Your task to perform on an android device: toggle notification dots Image 0: 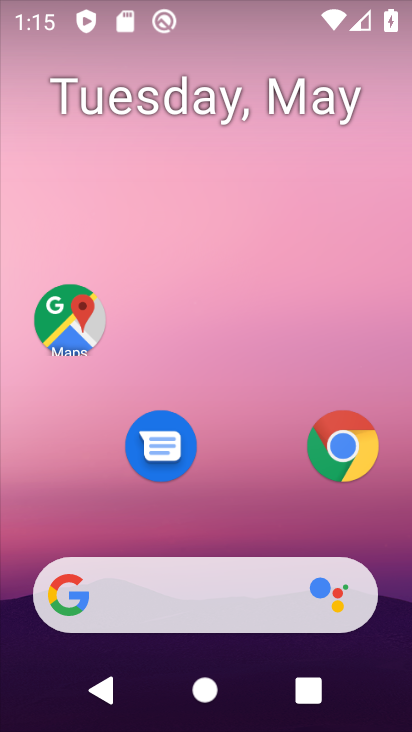
Step 0: drag from (198, 554) to (137, 0)
Your task to perform on an android device: toggle notification dots Image 1: 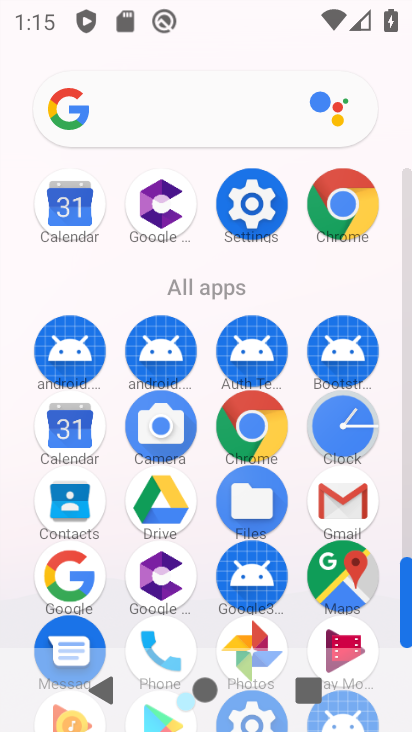
Step 1: click (258, 196)
Your task to perform on an android device: toggle notification dots Image 2: 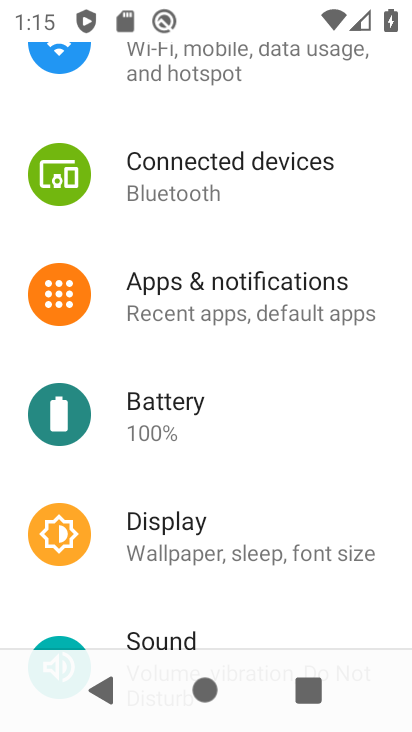
Step 2: click (245, 292)
Your task to perform on an android device: toggle notification dots Image 3: 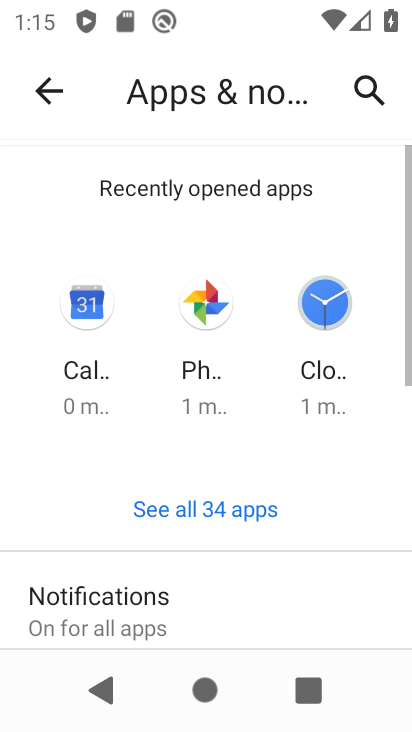
Step 3: drag from (147, 564) to (67, 5)
Your task to perform on an android device: toggle notification dots Image 4: 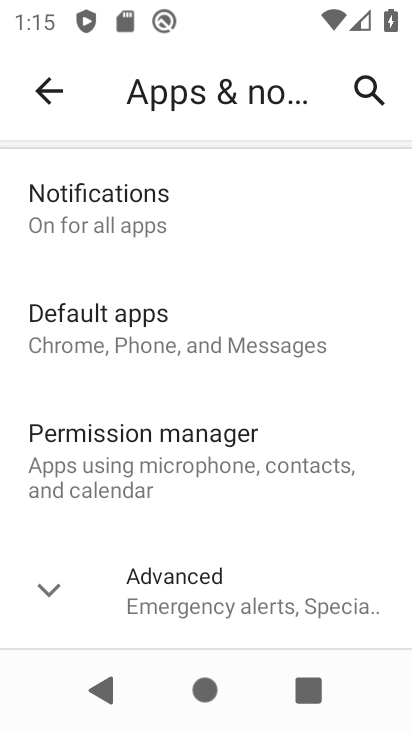
Step 4: click (83, 223)
Your task to perform on an android device: toggle notification dots Image 5: 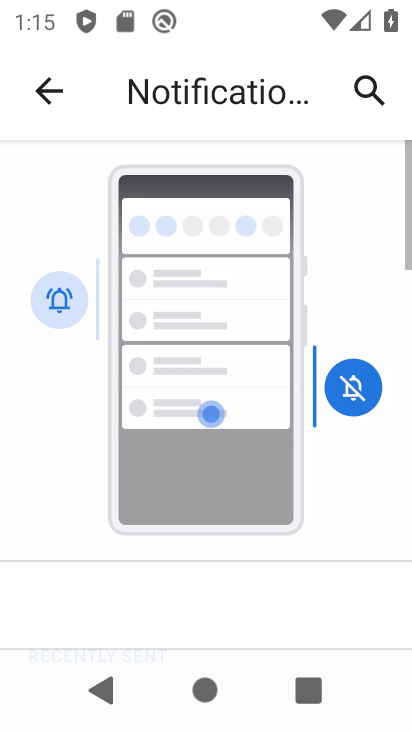
Step 5: drag from (202, 565) to (152, 6)
Your task to perform on an android device: toggle notification dots Image 6: 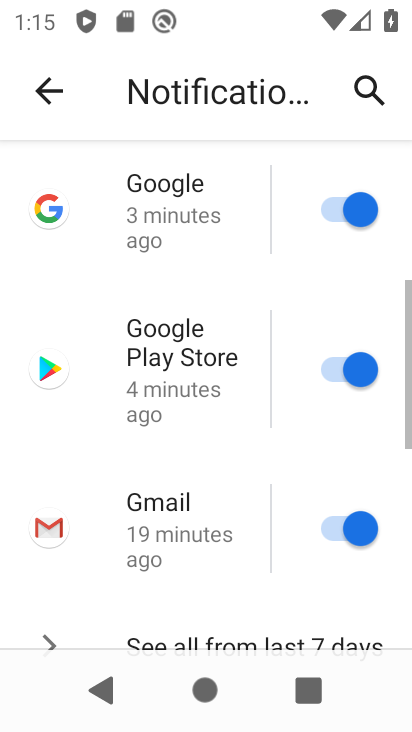
Step 6: drag from (253, 535) to (208, 6)
Your task to perform on an android device: toggle notification dots Image 7: 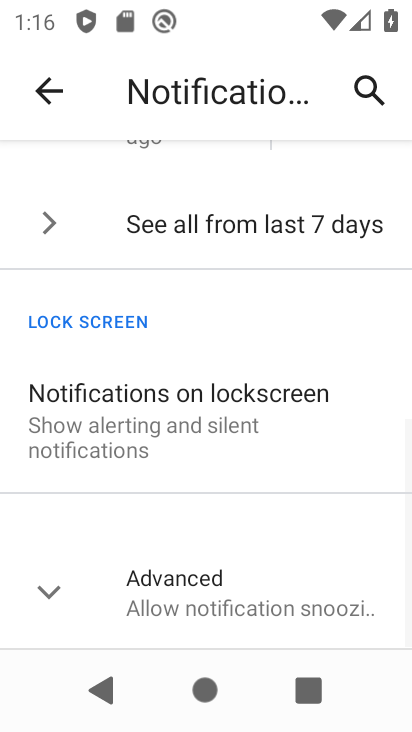
Step 7: click (237, 586)
Your task to perform on an android device: toggle notification dots Image 8: 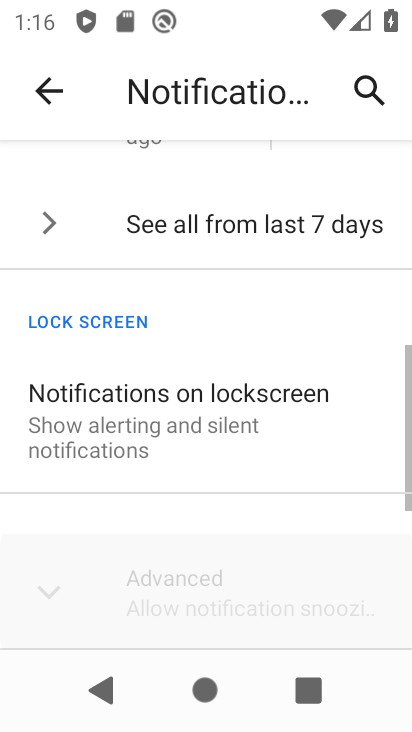
Step 8: drag from (235, 586) to (178, 37)
Your task to perform on an android device: toggle notification dots Image 9: 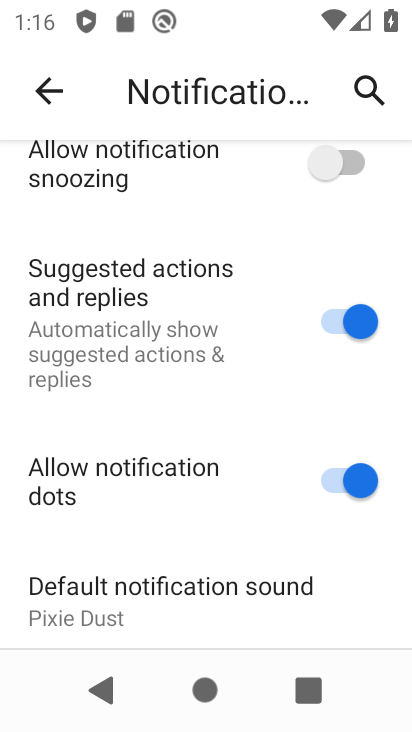
Step 9: click (305, 448)
Your task to perform on an android device: toggle notification dots Image 10: 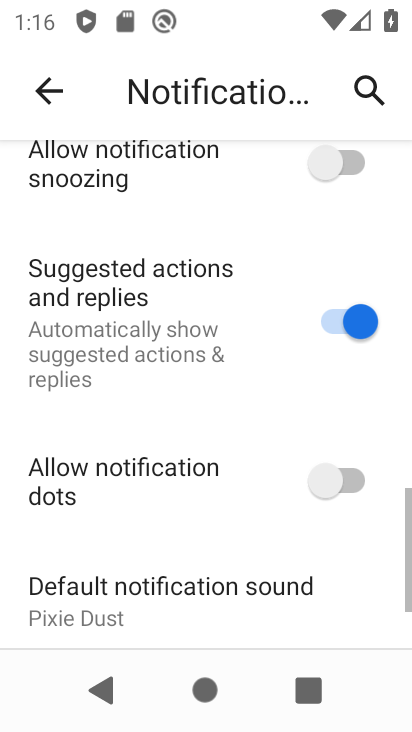
Step 10: task complete